Your task to perform on an android device: Open battery settings Image 0: 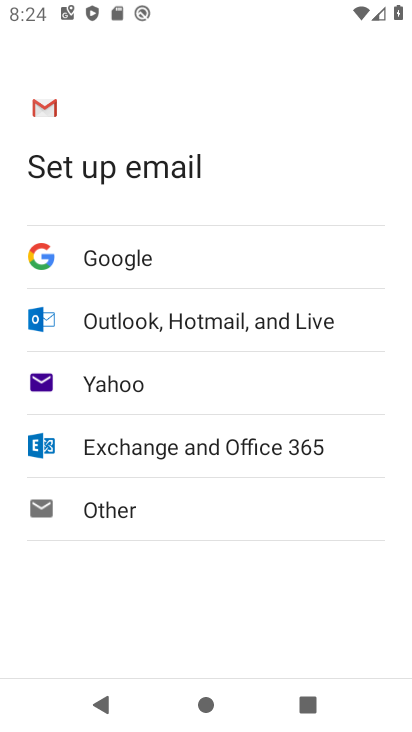
Step 0: press home button
Your task to perform on an android device: Open battery settings Image 1: 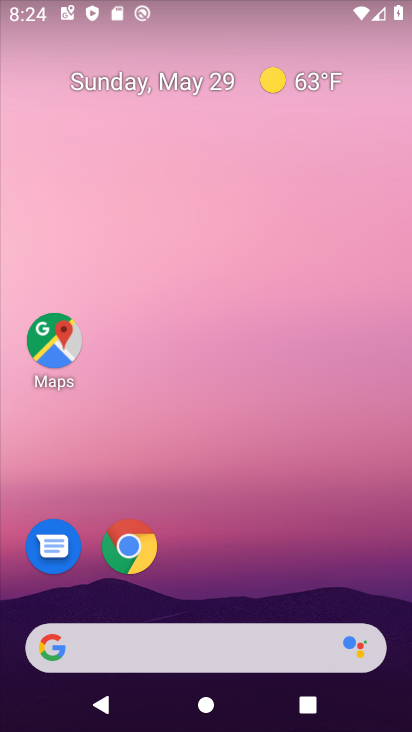
Step 1: drag from (193, 648) to (313, 90)
Your task to perform on an android device: Open battery settings Image 2: 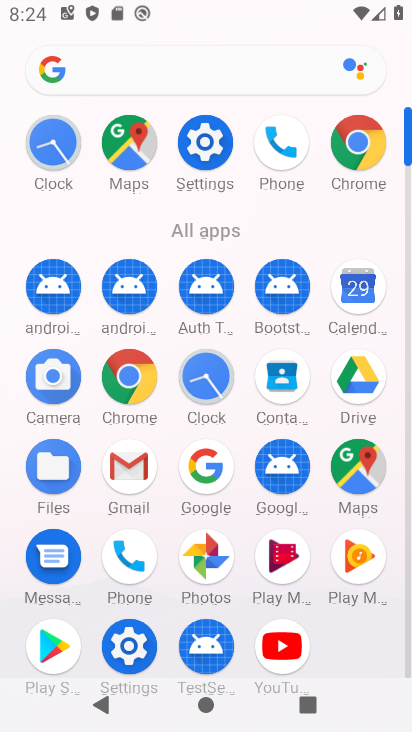
Step 2: click (200, 146)
Your task to perform on an android device: Open battery settings Image 3: 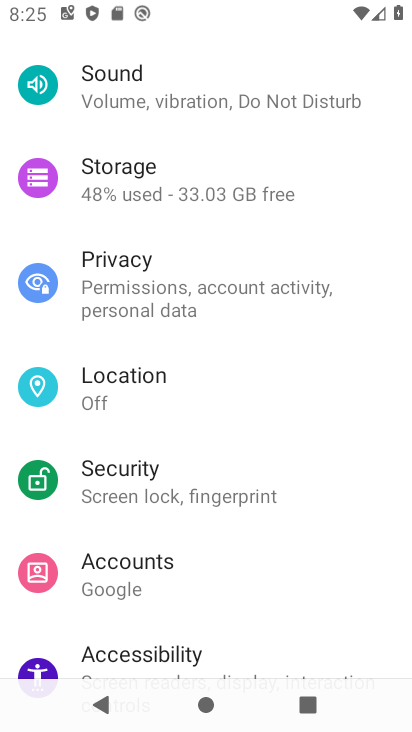
Step 3: drag from (334, 138) to (272, 586)
Your task to perform on an android device: Open battery settings Image 4: 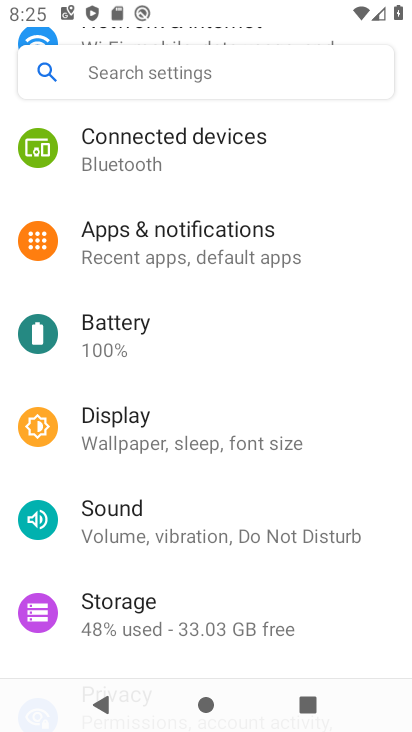
Step 4: click (117, 309)
Your task to perform on an android device: Open battery settings Image 5: 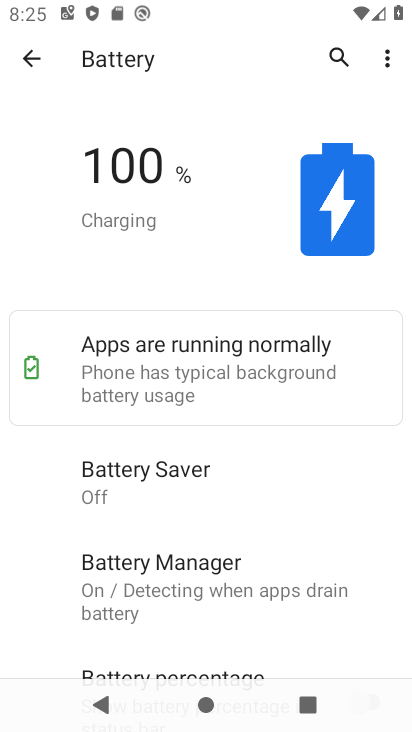
Step 5: task complete